Your task to perform on an android device: open a bookmark in the chrome app Image 0: 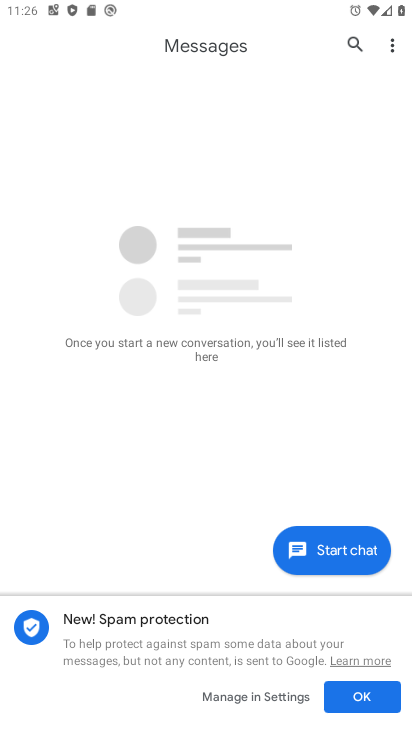
Step 0: press back button
Your task to perform on an android device: open a bookmark in the chrome app Image 1: 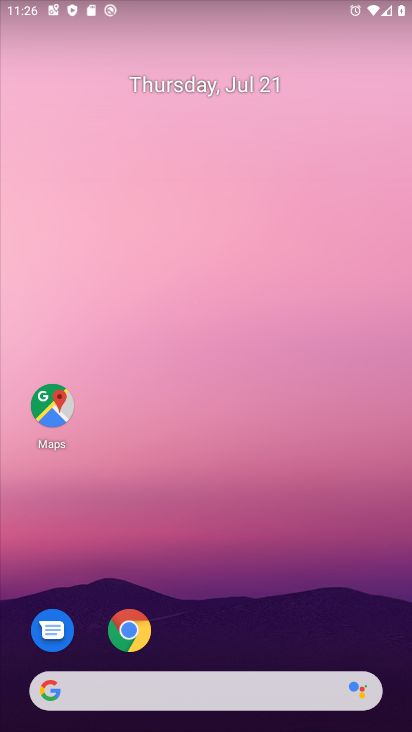
Step 1: click (135, 650)
Your task to perform on an android device: open a bookmark in the chrome app Image 2: 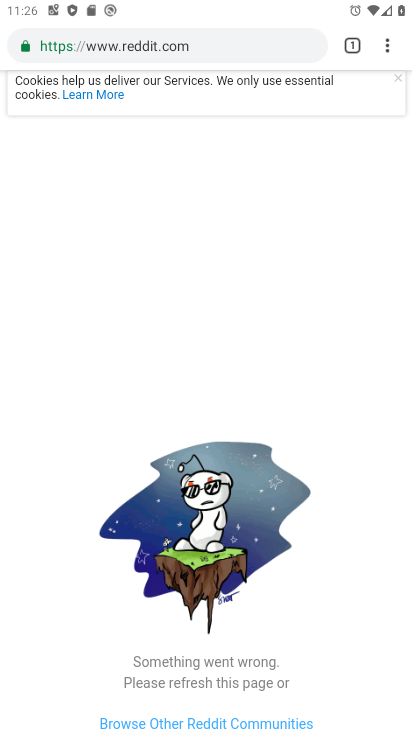
Step 2: click (387, 40)
Your task to perform on an android device: open a bookmark in the chrome app Image 3: 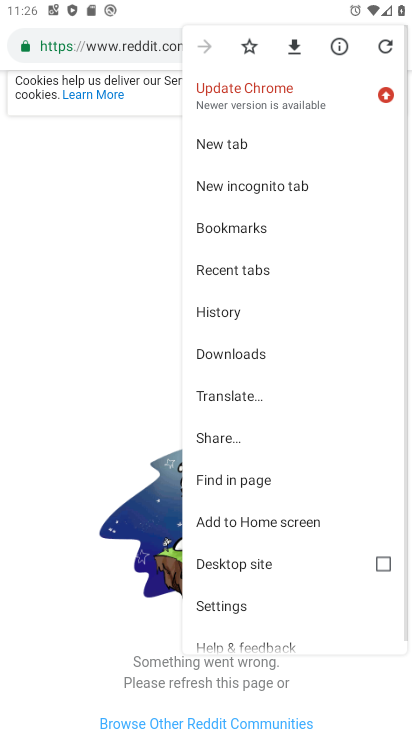
Step 3: click (226, 220)
Your task to perform on an android device: open a bookmark in the chrome app Image 4: 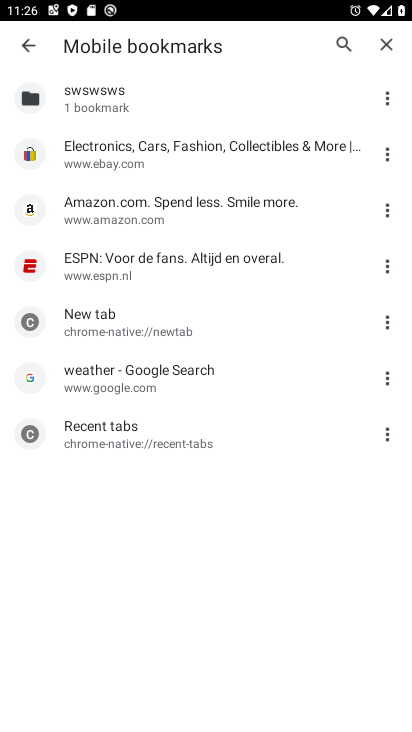
Step 4: task complete